Your task to perform on an android device: star an email in the gmail app Image 0: 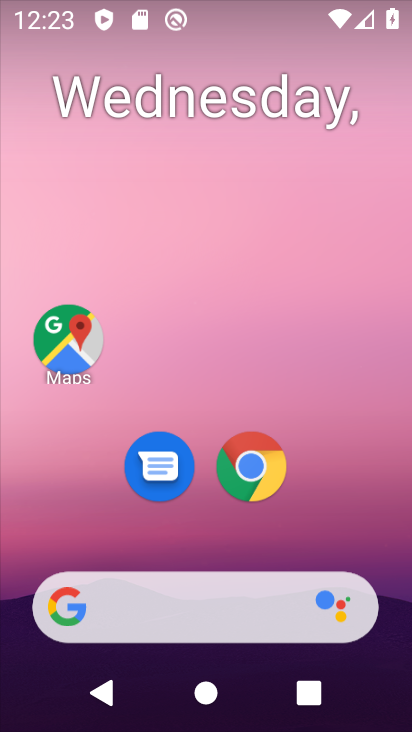
Step 0: drag from (42, 563) to (198, 0)
Your task to perform on an android device: star an email in the gmail app Image 1: 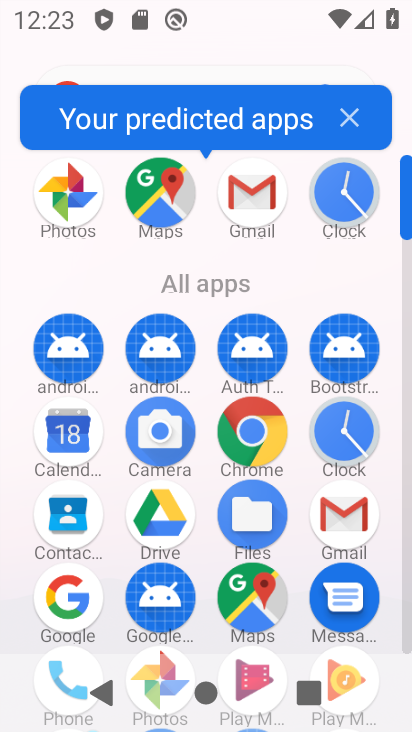
Step 1: click (248, 213)
Your task to perform on an android device: star an email in the gmail app Image 2: 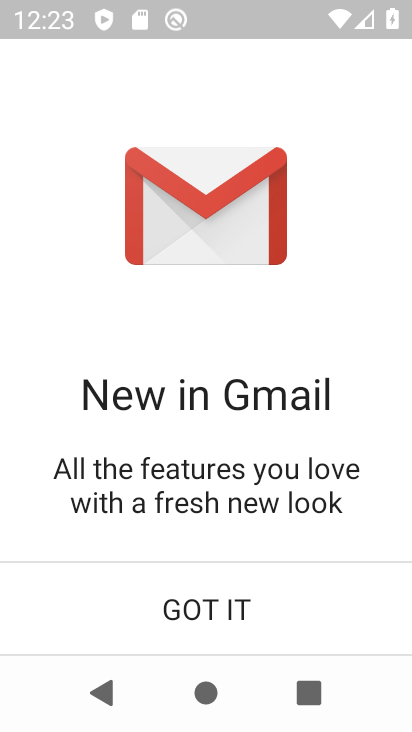
Step 2: click (236, 618)
Your task to perform on an android device: star an email in the gmail app Image 3: 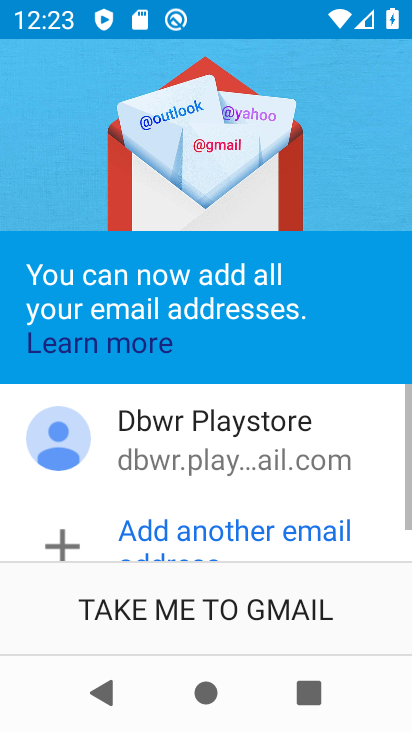
Step 3: click (236, 618)
Your task to perform on an android device: star an email in the gmail app Image 4: 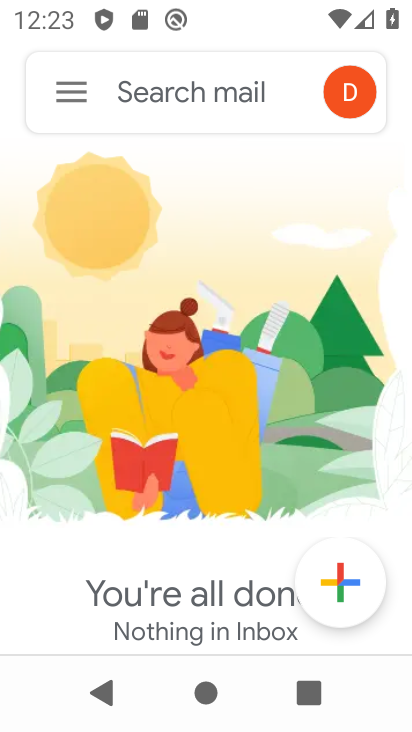
Step 4: click (84, 106)
Your task to perform on an android device: star an email in the gmail app Image 5: 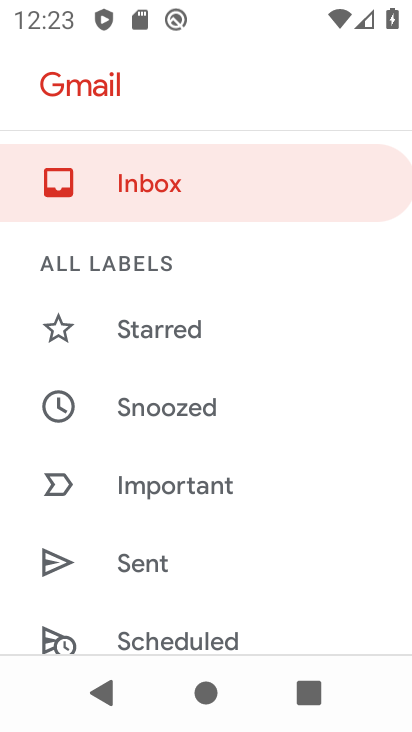
Step 5: drag from (135, 562) to (299, 219)
Your task to perform on an android device: star an email in the gmail app Image 6: 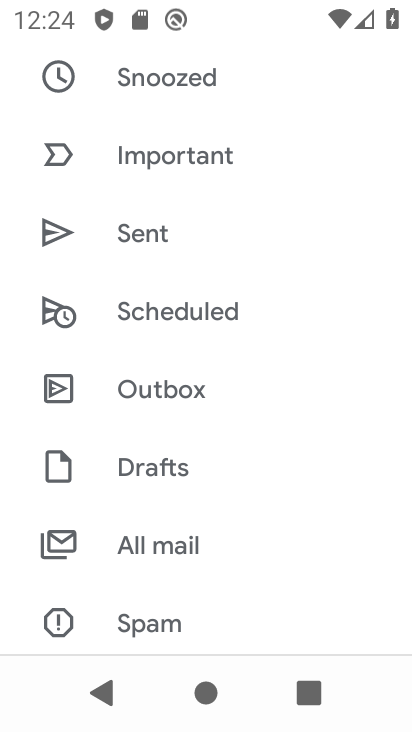
Step 6: click (170, 547)
Your task to perform on an android device: star an email in the gmail app Image 7: 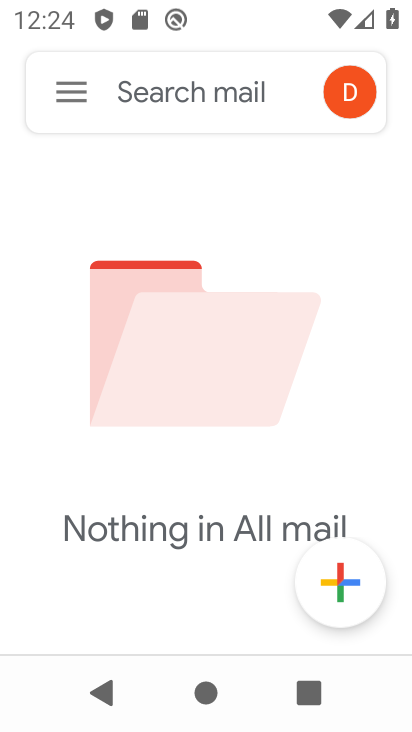
Step 7: task complete